Your task to perform on an android device: turn on improve location accuracy Image 0: 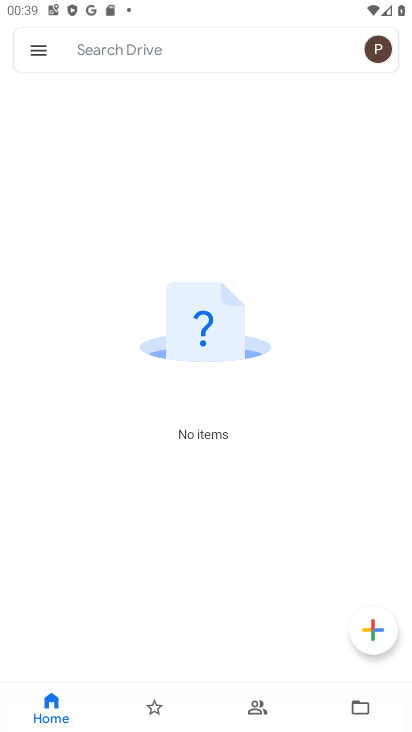
Step 0: click (48, 62)
Your task to perform on an android device: turn on improve location accuracy Image 1: 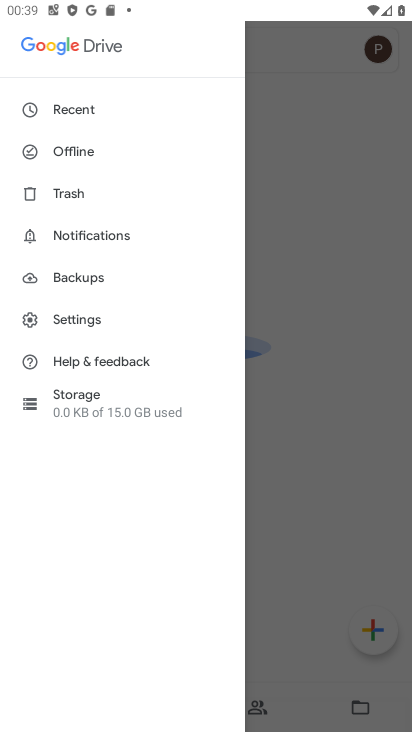
Step 1: click (395, 346)
Your task to perform on an android device: turn on improve location accuracy Image 2: 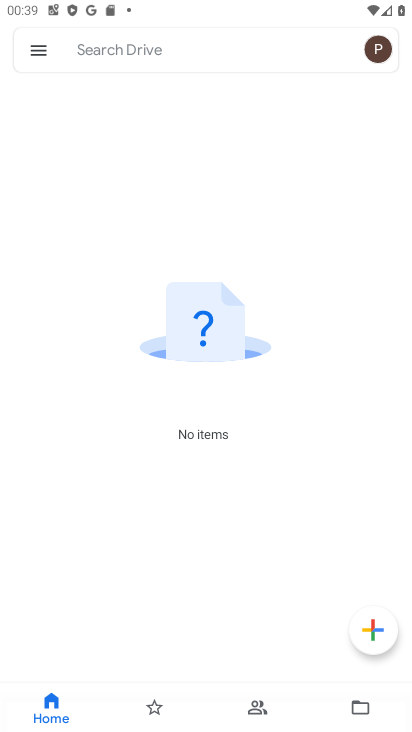
Step 2: press home button
Your task to perform on an android device: turn on improve location accuracy Image 3: 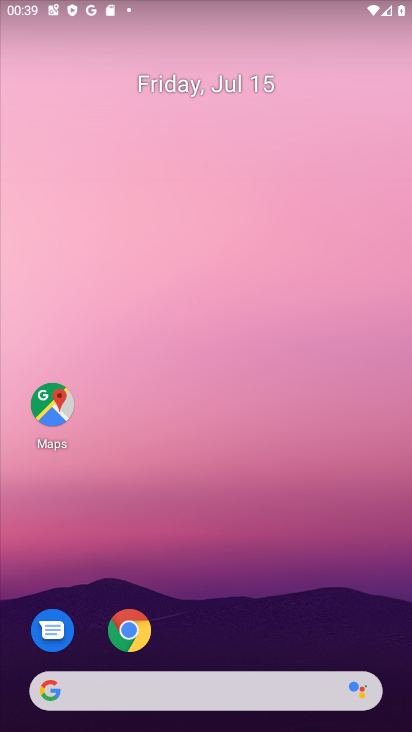
Step 3: drag from (228, 650) to (270, 280)
Your task to perform on an android device: turn on improve location accuracy Image 4: 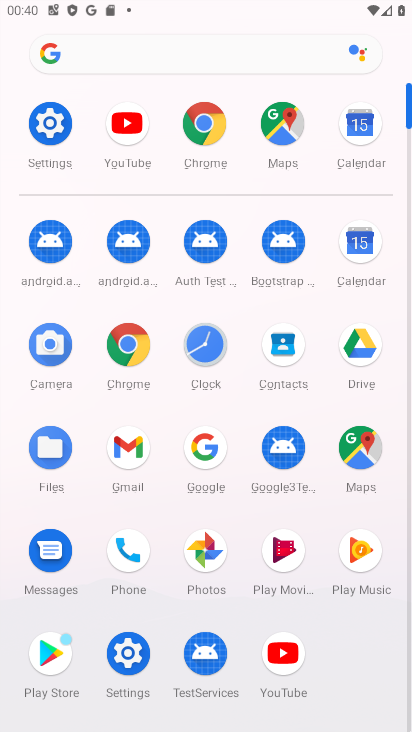
Step 4: click (66, 135)
Your task to perform on an android device: turn on improve location accuracy Image 5: 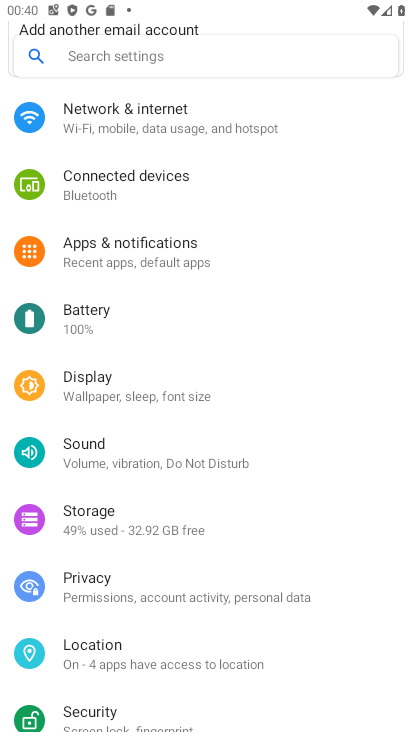
Step 5: click (149, 657)
Your task to perform on an android device: turn on improve location accuracy Image 6: 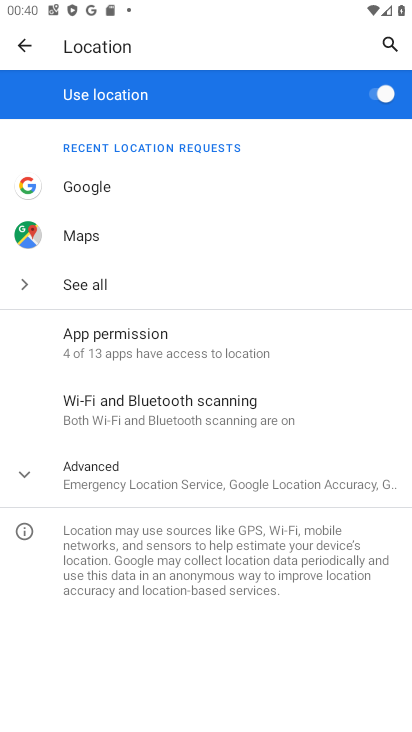
Step 6: click (158, 453)
Your task to perform on an android device: turn on improve location accuracy Image 7: 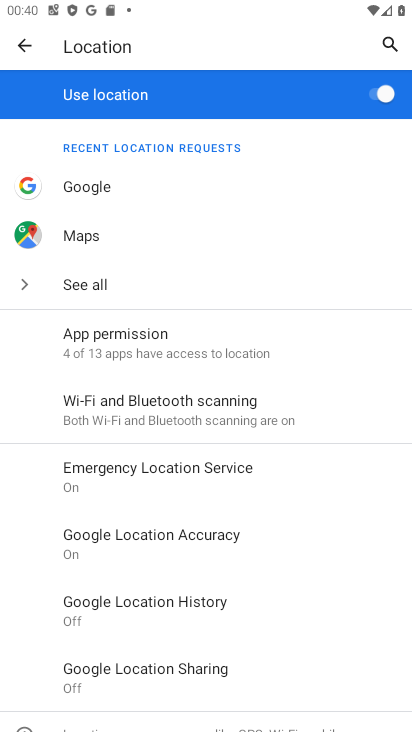
Step 7: click (147, 525)
Your task to perform on an android device: turn on improve location accuracy Image 8: 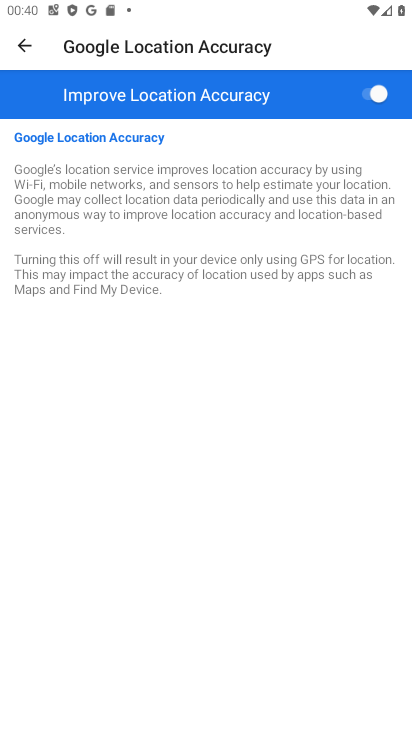
Step 8: task complete